Your task to perform on an android device: Go to network settings Image 0: 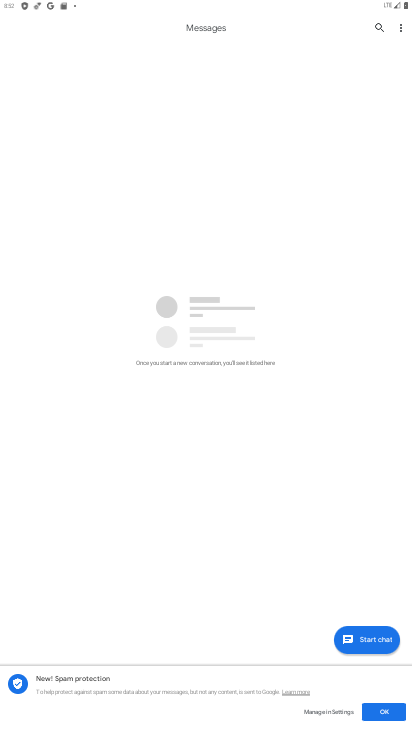
Step 0: press home button
Your task to perform on an android device: Go to network settings Image 1: 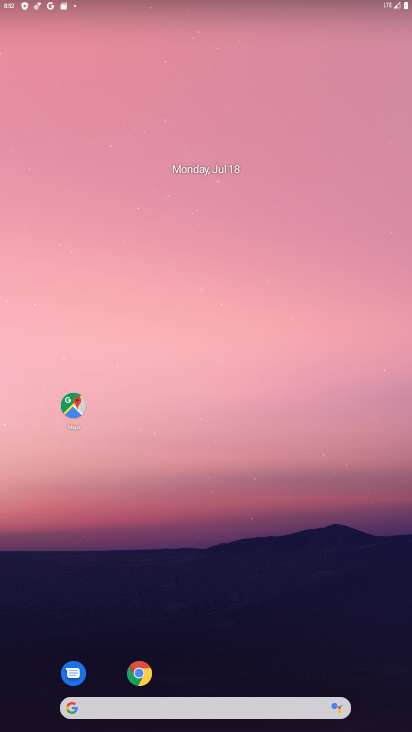
Step 1: drag from (197, 672) to (169, 217)
Your task to perform on an android device: Go to network settings Image 2: 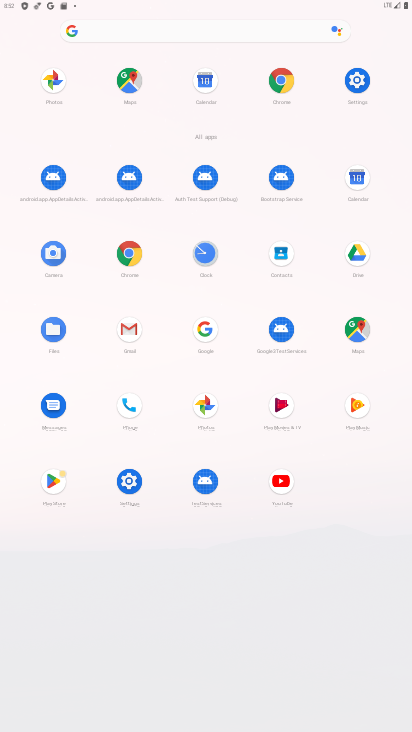
Step 2: click (354, 82)
Your task to perform on an android device: Go to network settings Image 3: 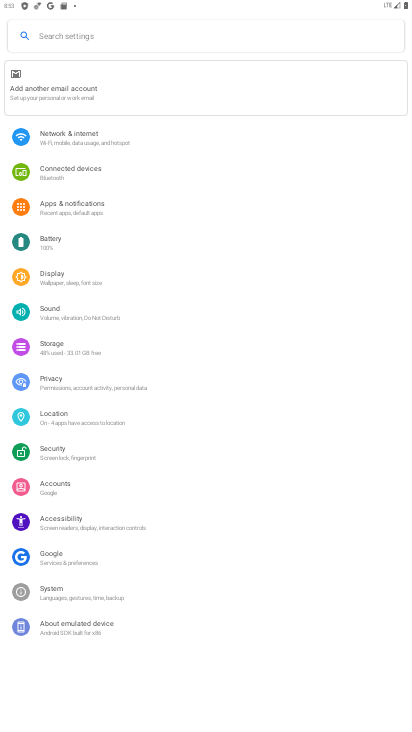
Step 3: click (92, 132)
Your task to perform on an android device: Go to network settings Image 4: 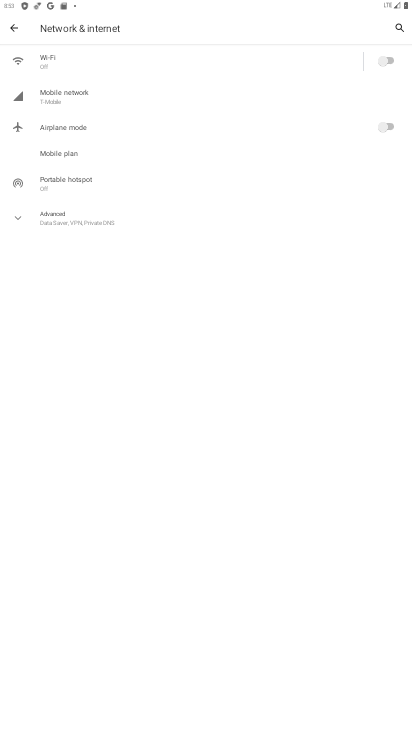
Step 4: click (80, 98)
Your task to perform on an android device: Go to network settings Image 5: 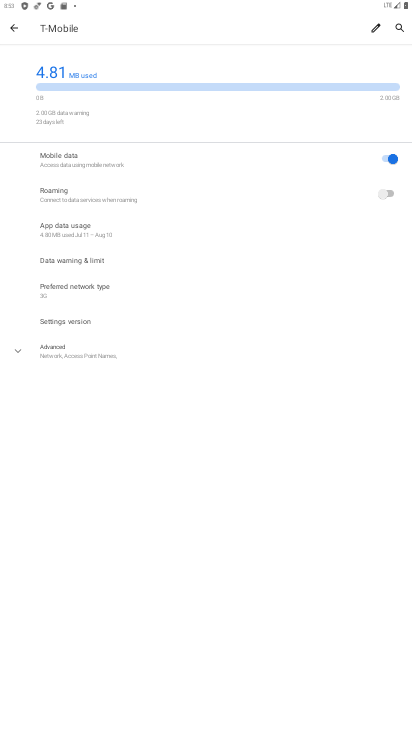
Step 5: task complete